Your task to perform on an android device: change keyboard looks Image 0: 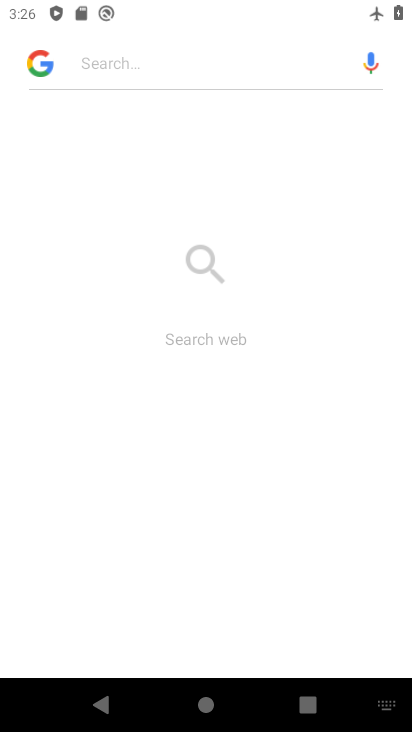
Step 0: press home button
Your task to perform on an android device: change keyboard looks Image 1: 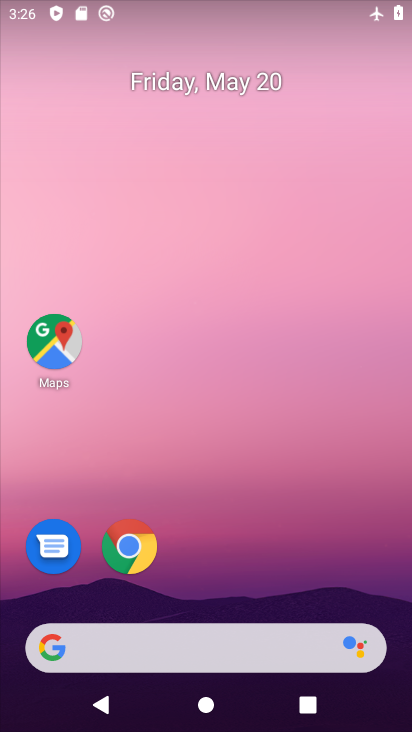
Step 1: drag from (270, 539) to (253, 93)
Your task to perform on an android device: change keyboard looks Image 2: 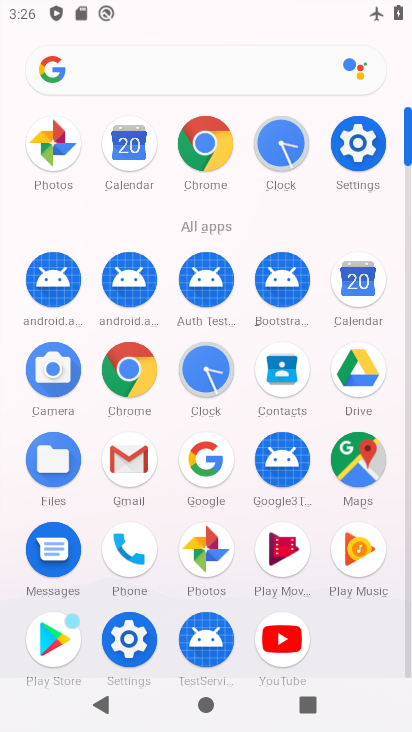
Step 2: click (371, 128)
Your task to perform on an android device: change keyboard looks Image 3: 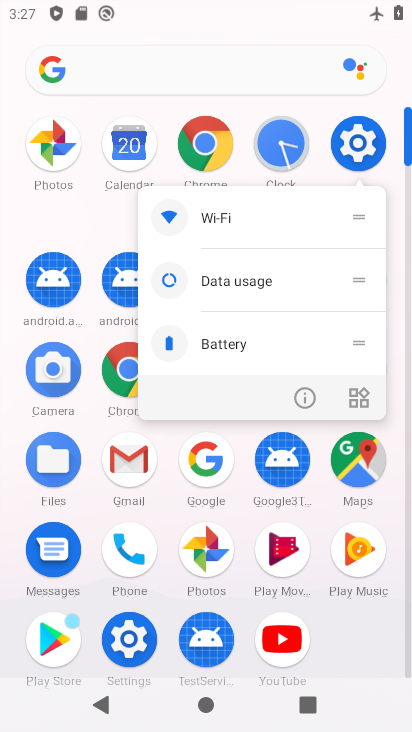
Step 3: click (359, 147)
Your task to perform on an android device: change keyboard looks Image 4: 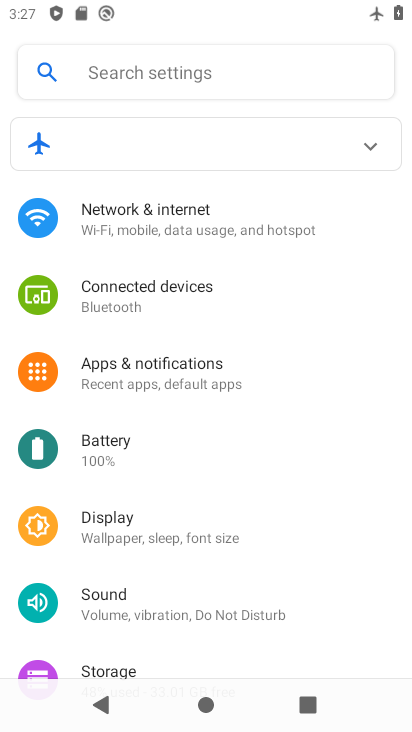
Step 4: drag from (174, 611) to (242, 103)
Your task to perform on an android device: change keyboard looks Image 5: 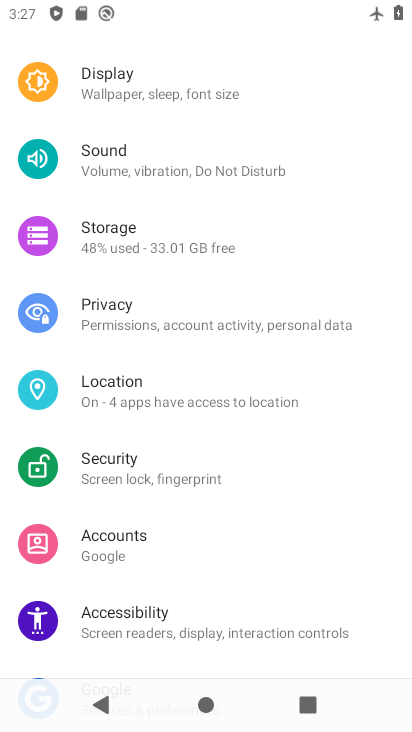
Step 5: drag from (199, 557) to (273, 120)
Your task to perform on an android device: change keyboard looks Image 6: 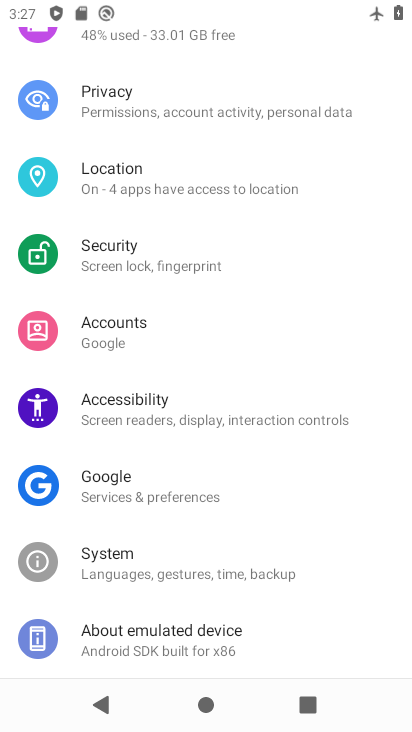
Step 6: click (149, 567)
Your task to perform on an android device: change keyboard looks Image 7: 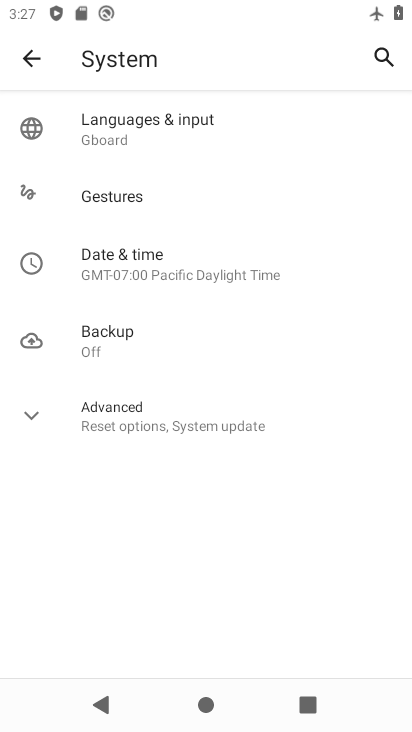
Step 7: click (135, 114)
Your task to perform on an android device: change keyboard looks Image 8: 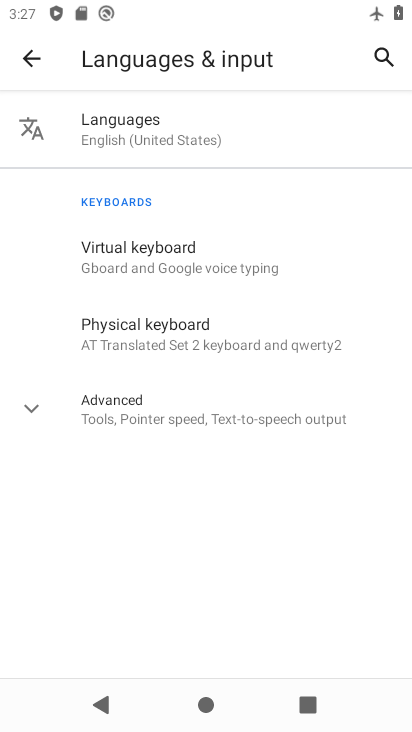
Step 8: click (163, 249)
Your task to perform on an android device: change keyboard looks Image 9: 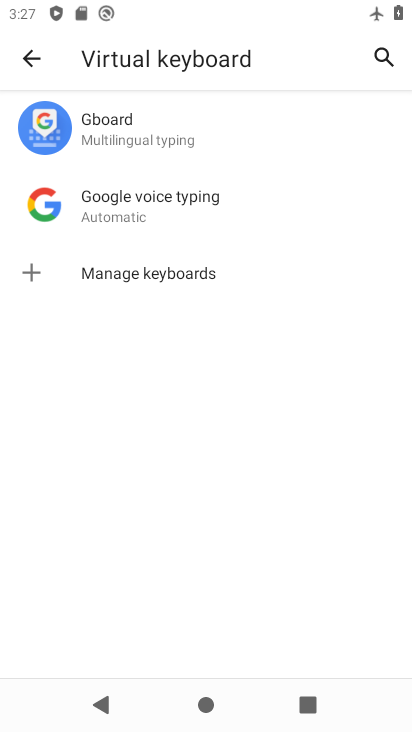
Step 9: click (154, 150)
Your task to perform on an android device: change keyboard looks Image 10: 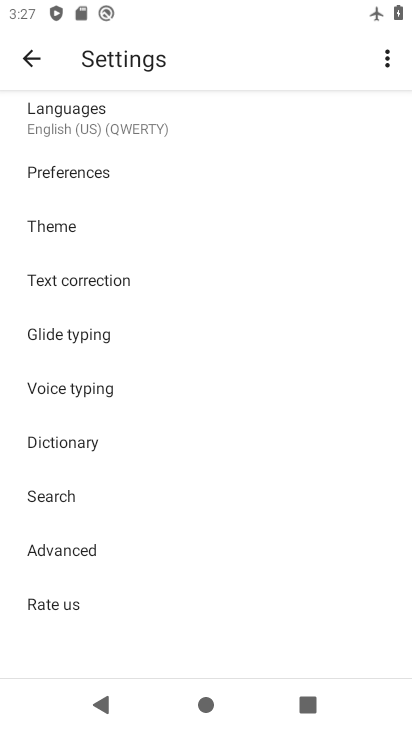
Step 10: click (57, 228)
Your task to perform on an android device: change keyboard looks Image 11: 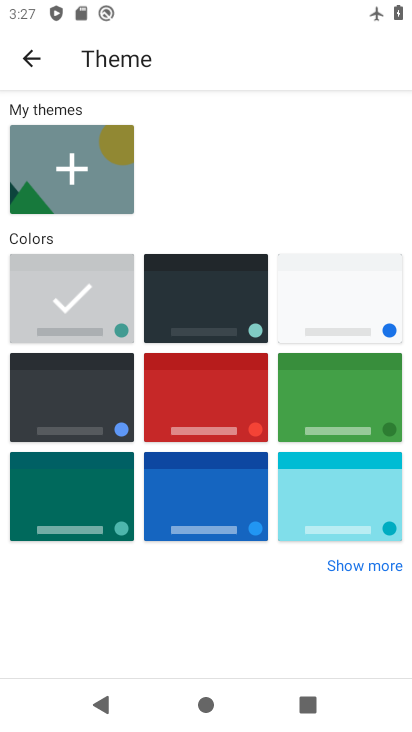
Step 11: click (408, 303)
Your task to perform on an android device: change keyboard looks Image 12: 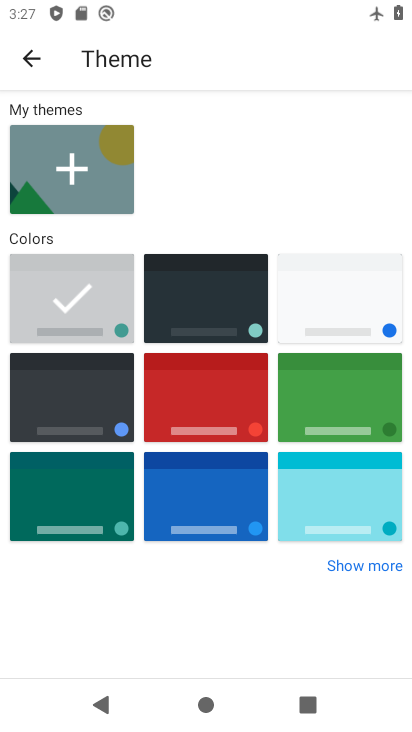
Step 12: click (383, 299)
Your task to perform on an android device: change keyboard looks Image 13: 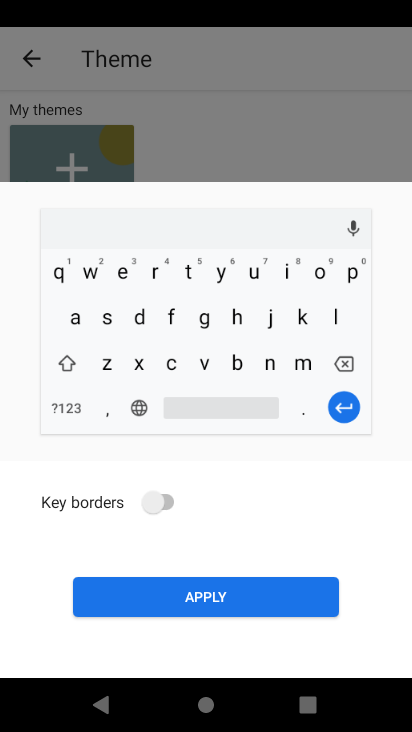
Step 13: click (203, 595)
Your task to perform on an android device: change keyboard looks Image 14: 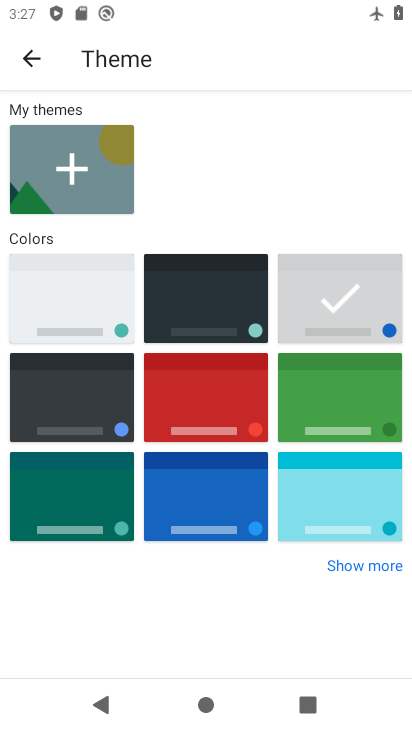
Step 14: task complete